Your task to perform on an android device: Open network settings Image 0: 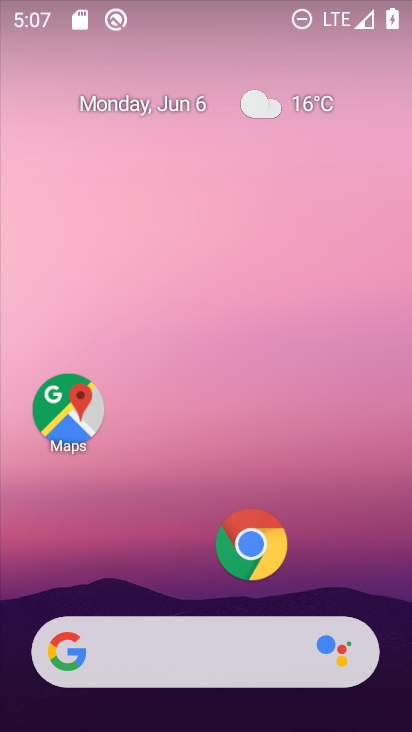
Step 0: drag from (187, 579) to (203, 202)
Your task to perform on an android device: Open network settings Image 1: 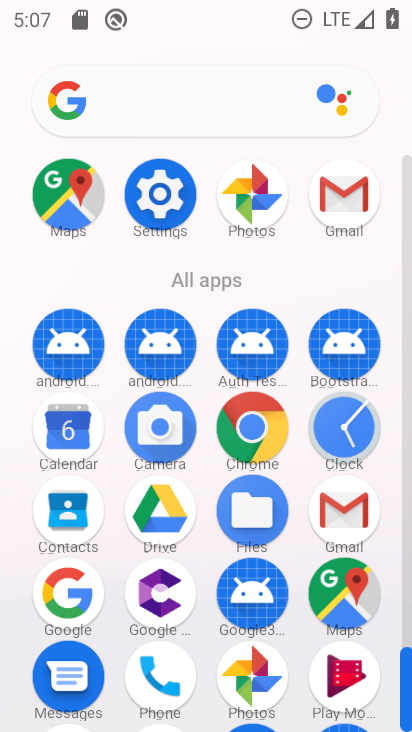
Step 1: click (158, 188)
Your task to perform on an android device: Open network settings Image 2: 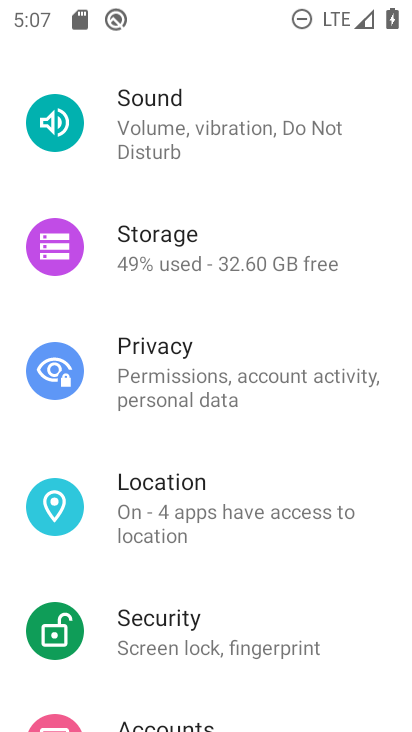
Step 2: drag from (213, 118) to (254, 728)
Your task to perform on an android device: Open network settings Image 3: 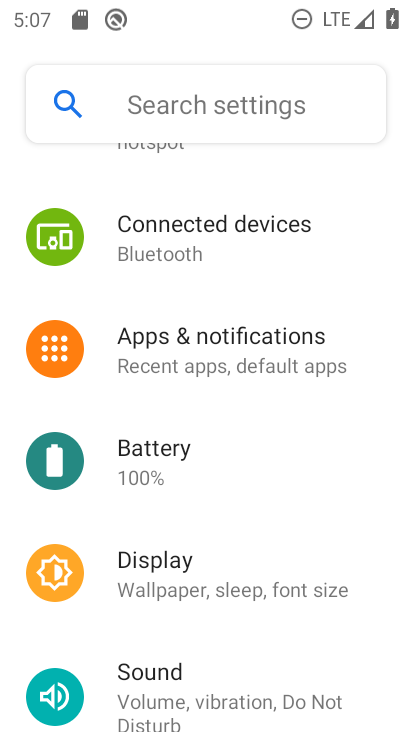
Step 3: drag from (231, 233) to (237, 565)
Your task to perform on an android device: Open network settings Image 4: 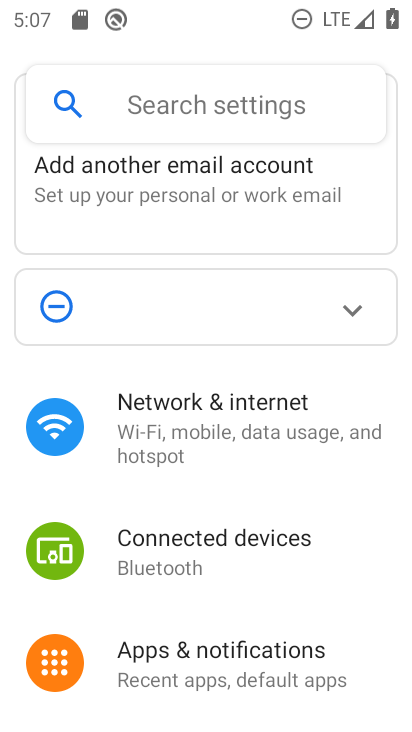
Step 4: click (226, 431)
Your task to perform on an android device: Open network settings Image 5: 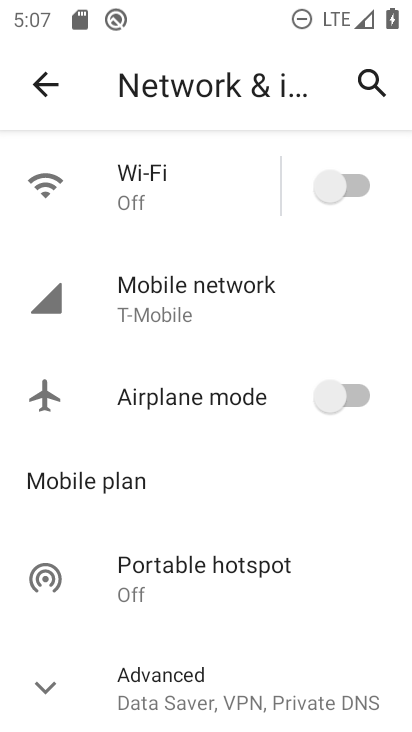
Step 5: click (52, 683)
Your task to perform on an android device: Open network settings Image 6: 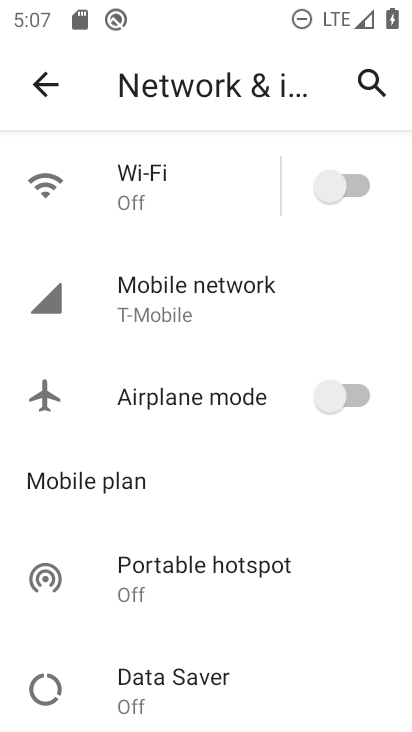
Step 6: task complete